Your task to perform on an android device: add a contact in the contacts app Image 0: 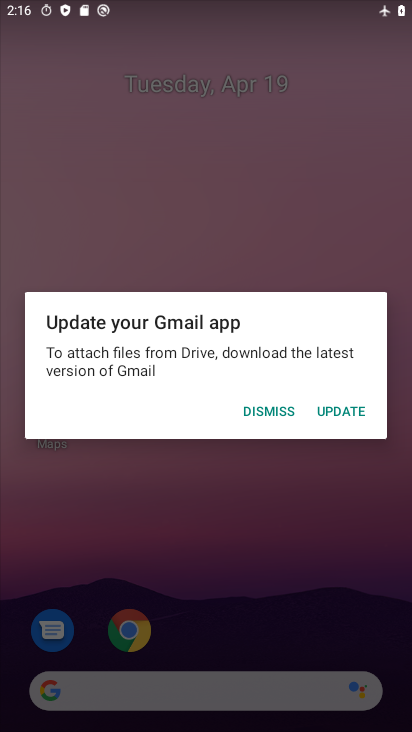
Step 0: press home button
Your task to perform on an android device: add a contact in the contacts app Image 1: 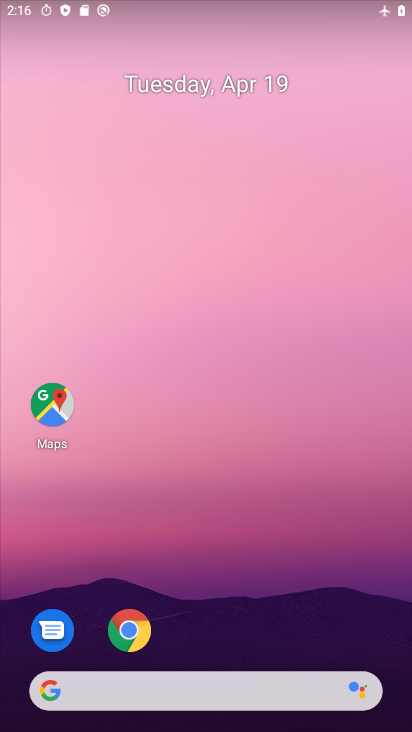
Step 1: drag from (217, 604) to (213, 103)
Your task to perform on an android device: add a contact in the contacts app Image 2: 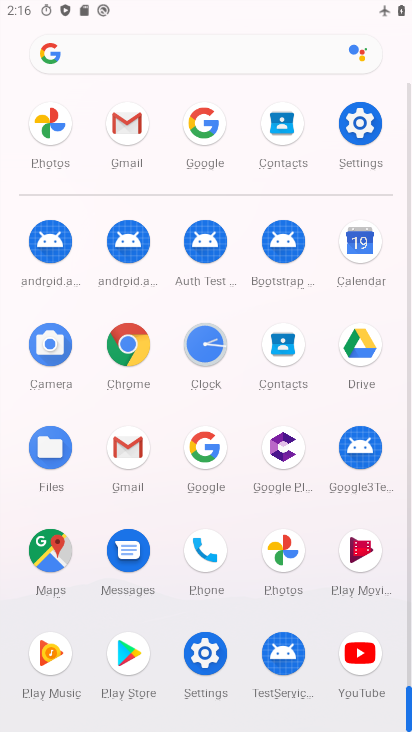
Step 2: click (279, 130)
Your task to perform on an android device: add a contact in the contacts app Image 3: 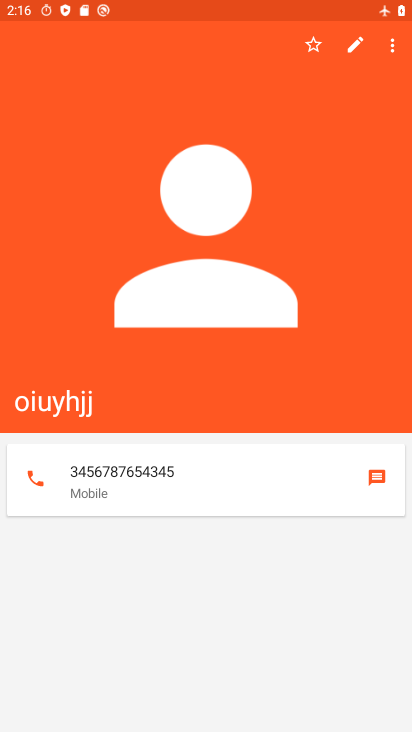
Step 3: press back button
Your task to perform on an android device: add a contact in the contacts app Image 4: 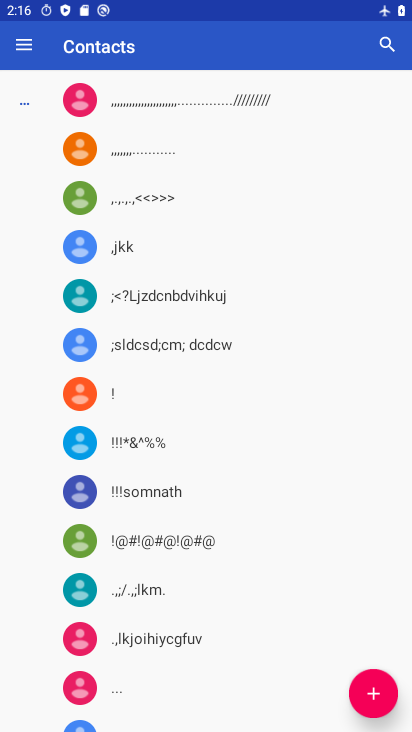
Step 4: click (372, 688)
Your task to perform on an android device: add a contact in the contacts app Image 5: 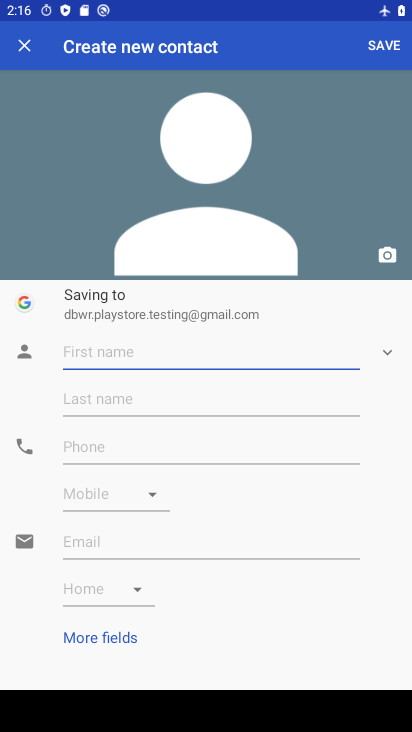
Step 5: type "wertfgh"
Your task to perform on an android device: add a contact in the contacts app Image 6: 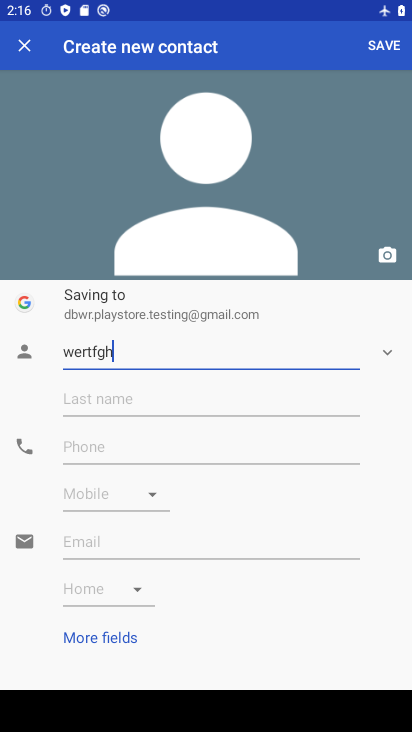
Step 6: click (174, 438)
Your task to perform on an android device: add a contact in the contacts app Image 7: 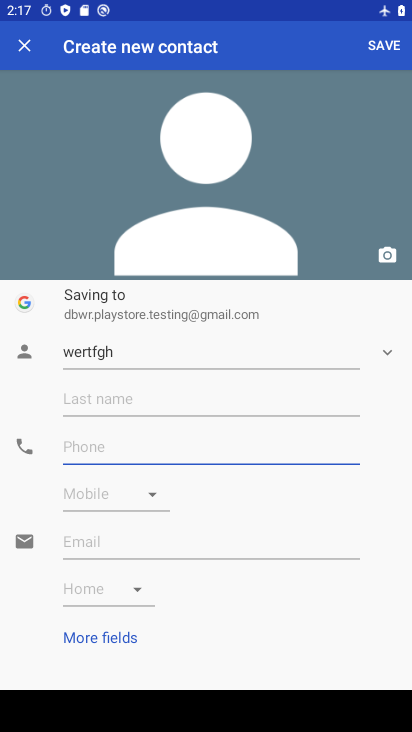
Step 7: type "23456654456"
Your task to perform on an android device: add a contact in the contacts app Image 8: 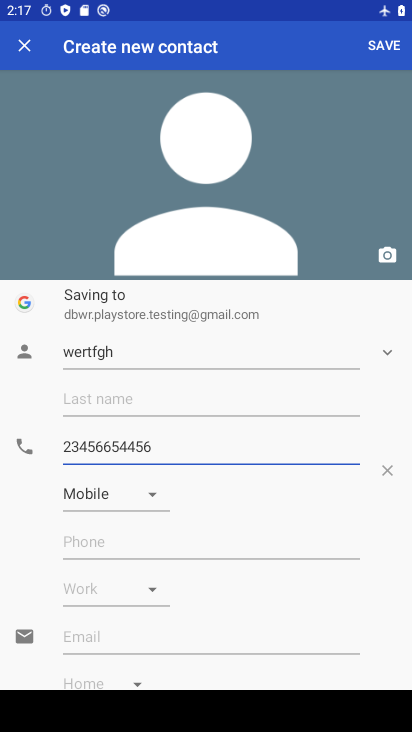
Step 8: click (381, 41)
Your task to perform on an android device: add a contact in the contacts app Image 9: 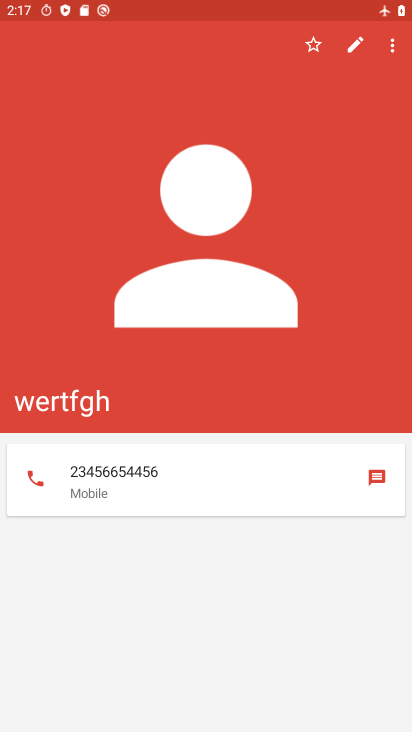
Step 9: task complete